Your task to perform on an android device: toggle notifications settings in the gmail app Image 0: 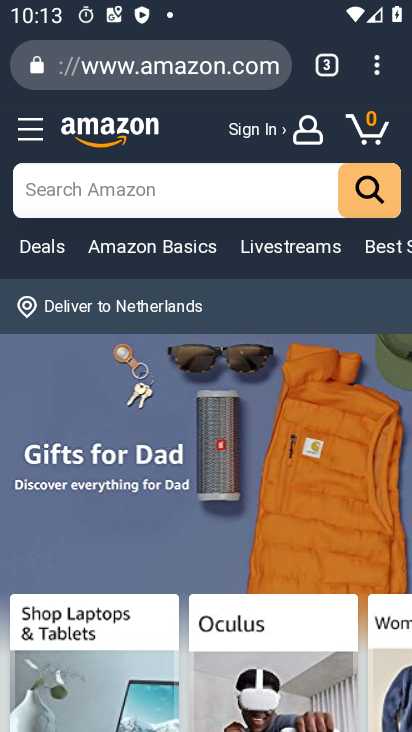
Step 0: press home button
Your task to perform on an android device: toggle notifications settings in the gmail app Image 1: 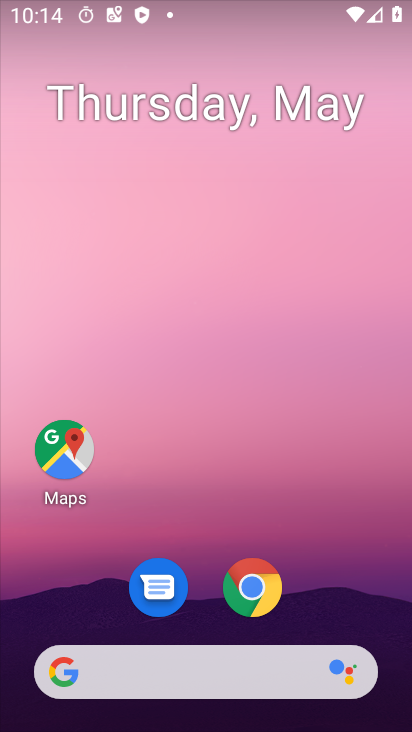
Step 1: drag from (365, 551) to (310, 2)
Your task to perform on an android device: toggle notifications settings in the gmail app Image 2: 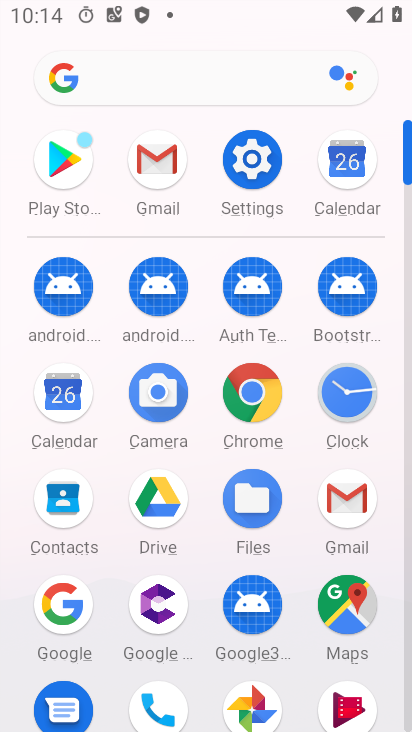
Step 2: click (162, 163)
Your task to perform on an android device: toggle notifications settings in the gmail app Image 3: 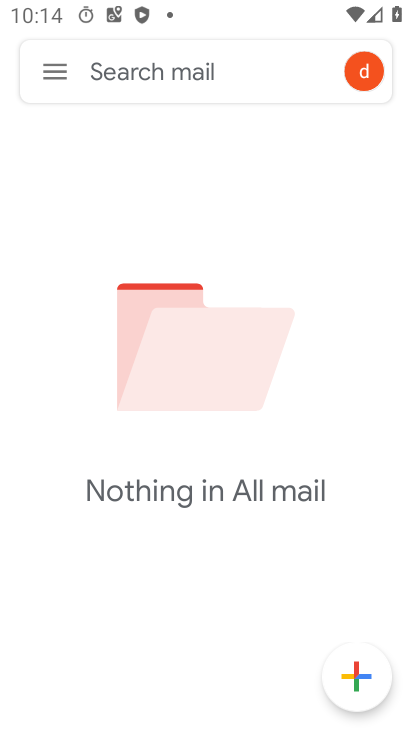
Step 3: click (46, 76)
Your task to perform on an android device: toggle notifications settings in the gmail app Image 4: 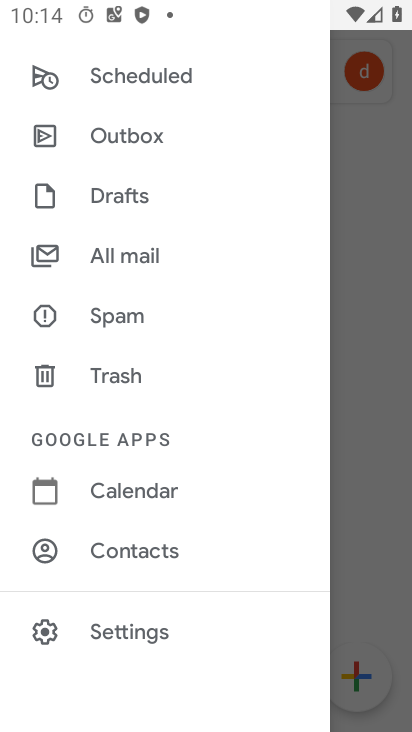
Step 4: click (149, 627)
Your task to perform on an android device: toggle notifications settings in the gmail app Image 5: 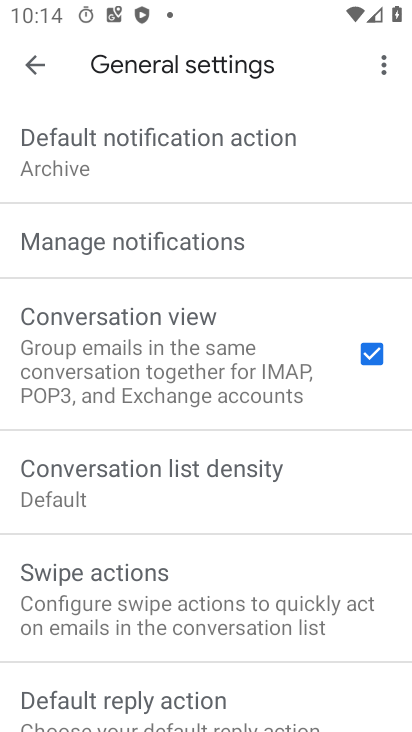
Step 5: click (148, 254)
Your task to perform on an android device: toggle notifications settings in the gmail app Image 6: 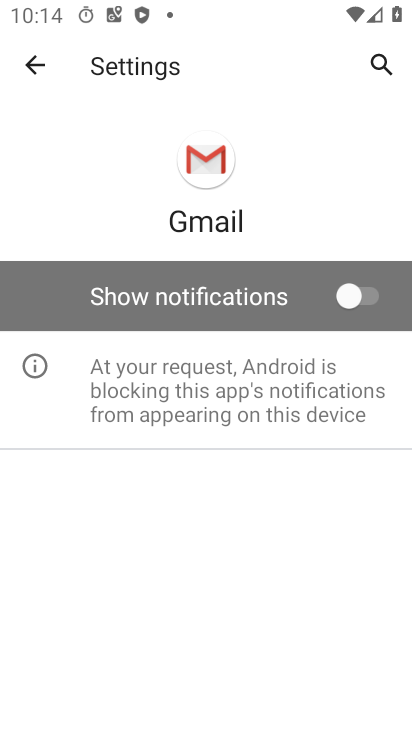
Step 6: click (354, 291)
Your task to perform on an android device: toggle notifications settings in the gmail app Image 7: 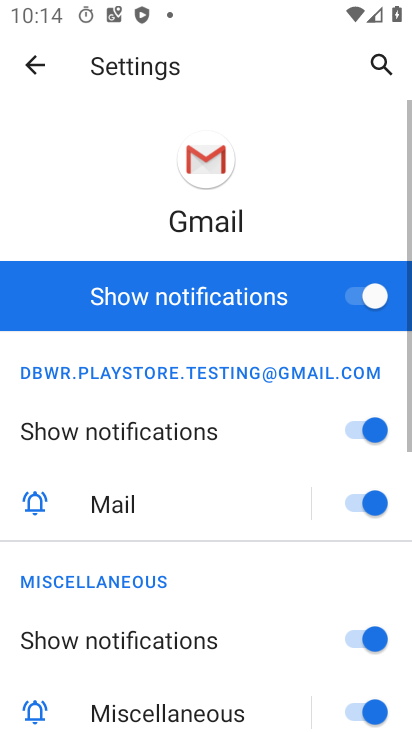
Step 7: task complete